Your task to perform on an android device: open chrome and create a bookmark for the current page Image 0: 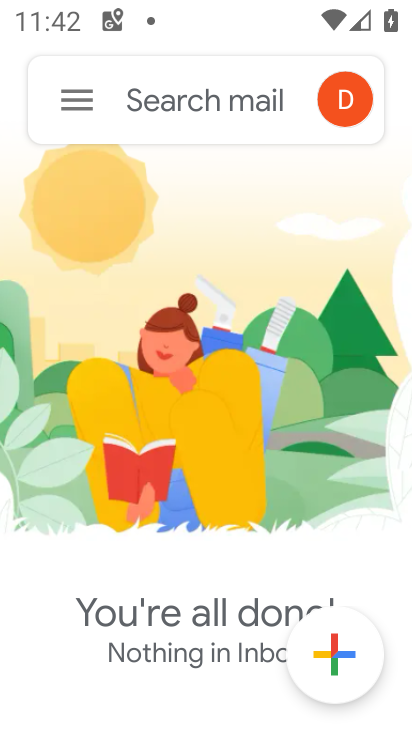
Step 0: press home button
Your task to perform on an android device: open chrome and create a bookmark for the current page Image 1: 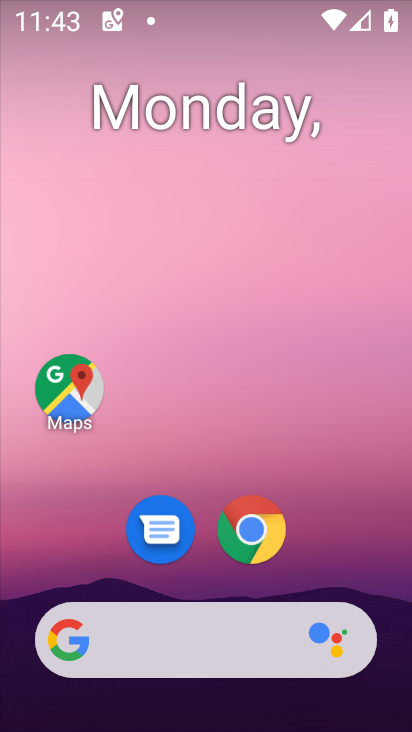
Step 1: click (268, 523)
Your task to perform on an android device: open chrome and create a bookmark for the current page Image 2: 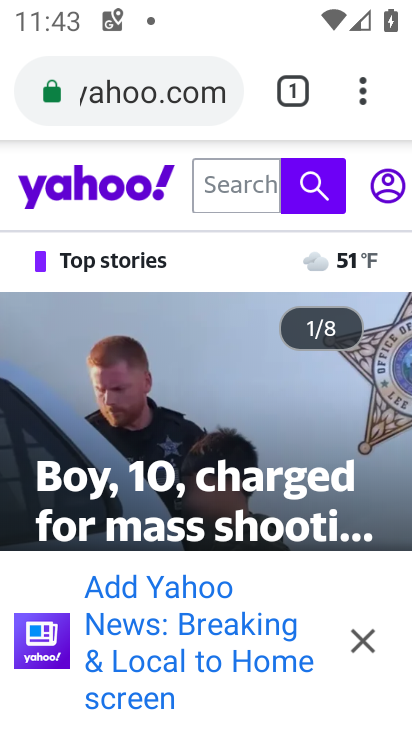
Step 2: click (363, 101)
Your task to perform on an android device: open chrome and create a bookmark for the current page Image 3: 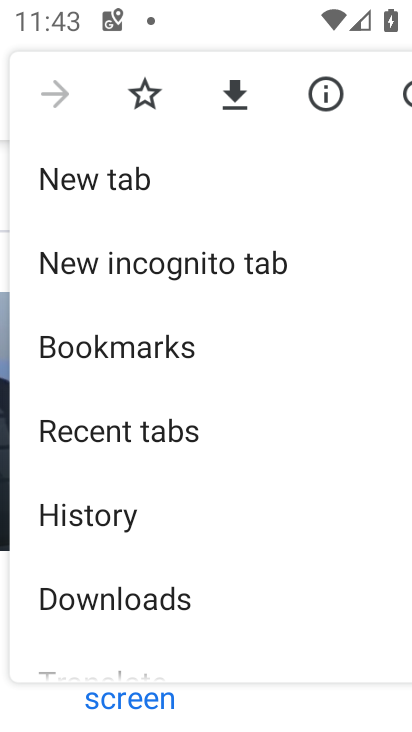
Step 3: click (103, 355)
Your task to perform on an android device: open chrome and create a bookmark for the current page Image 4: 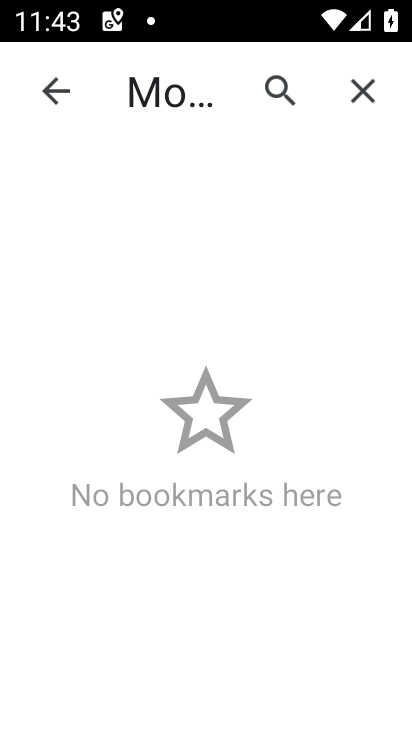
Step 4: task complete